Your task to perform on an android device: Toggle the flashlight Image 0: 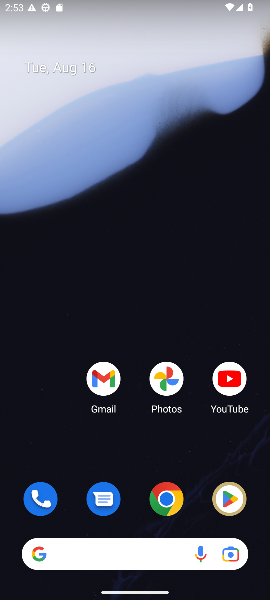
Step 0: drag from (77, 455) to (32, 6)
Your task to perform on an android device: Toggle the flashlight Image 1: 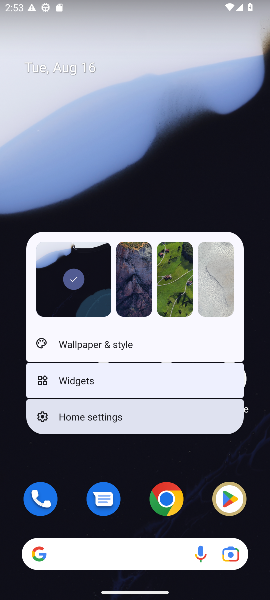
Step 1: click (87, 150)
Your task to perform on an android device: Toggle the flashlight Image 2: 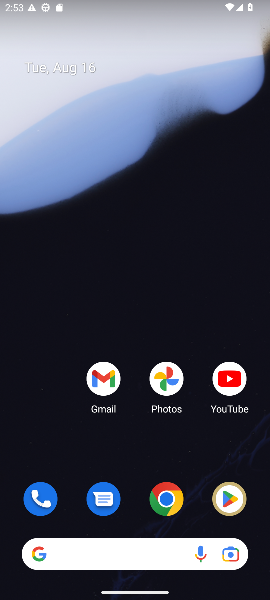
Step 2: drag from (63, 460) to (80, 5)
Your task to perform on an android device: Toggle the flashlight Image 3: 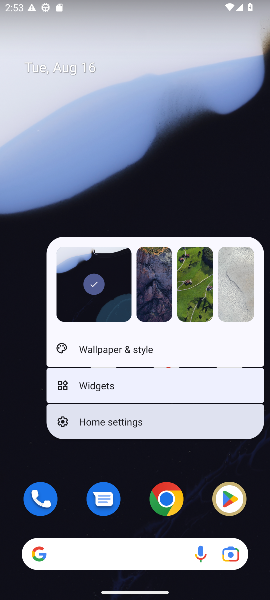
Step 3: click (51, 167)
Your task to perform on an android device: Toggle the flashlight Image 4: 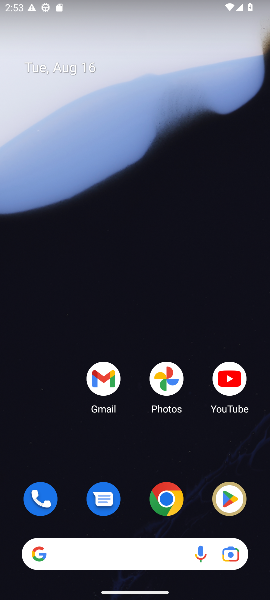
Step 4: drag from (145, 486) to (127, 57)
Your task to perform on an android device: Toggle the flashlight Image 5: 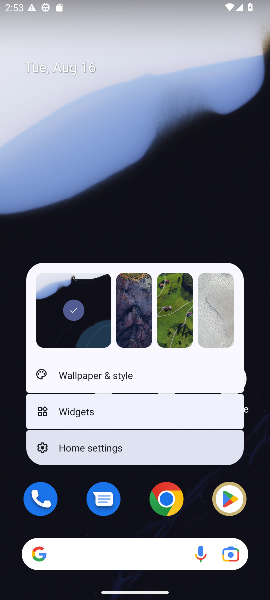
Step 5: click (81, 106)
Your task to perform on an android device: Toggle the flashlight Image 6: 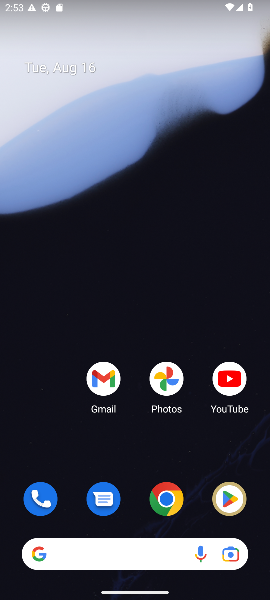
Step 6: drag from (16, 589) to (112, 0)
Your task to perform on an android device: Toggle the flashlight Image 7: 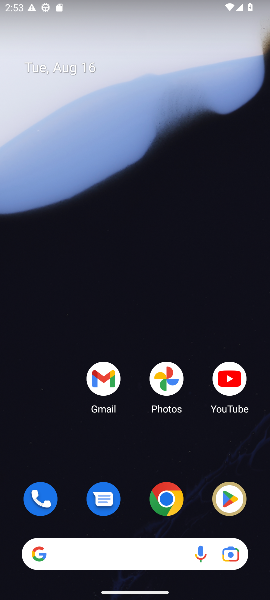
Step 7: drag from (171, 583) to (158, 4)
Your task to perform on an android device: Toggle the flashlight Image 8: 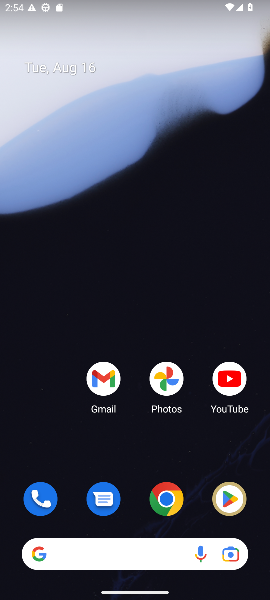
Step 8: drag from (160, 573) to (168, 16)
Your task to perform on an android device: Toggle the flashlight Image 9: 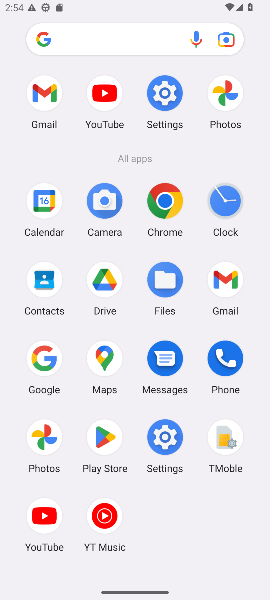
Step 9: click (167, 445)
Your task to perform on an android device: Toggle the flashlight Image 10: 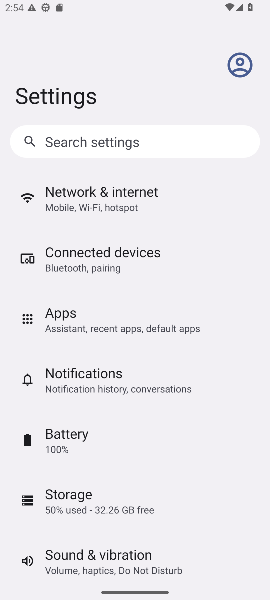
Step 10: click (46, 191)
Your task to perform on an android device: Toggle the flashlight Image 11: 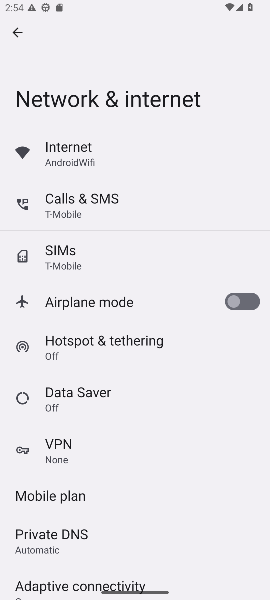
Step 11: task complete